Your task to perform on an android device: change notification settings in the gmail app Image 0: 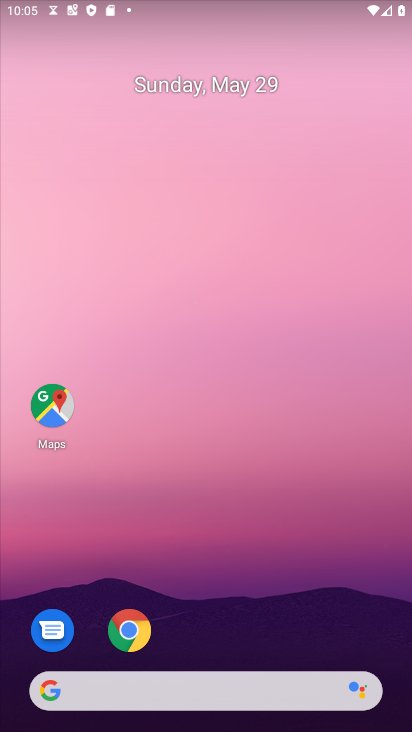
Step 0: drag from (248, 625) to (283, 125)
Your task to perform on an android device: change notification settings in the gmail app Image 1: 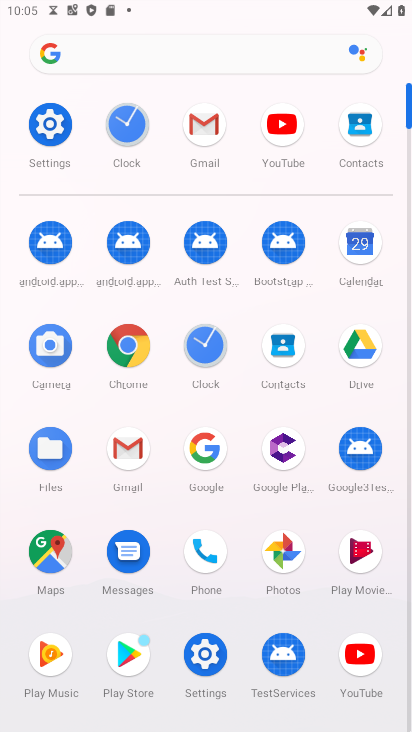
Step 1: click (204, 129)
Your task to perform on an android device: change notification settings in the gmail app Image 2: 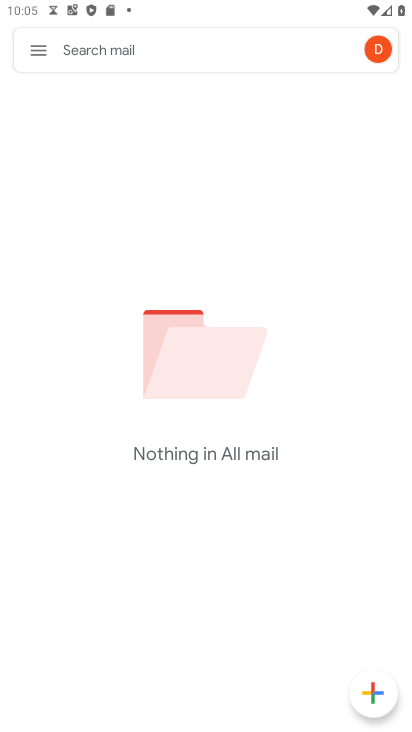
Step 2: click (33, 53)
Your task to perform on an android device: change notification settings in the gmail app Image 3: 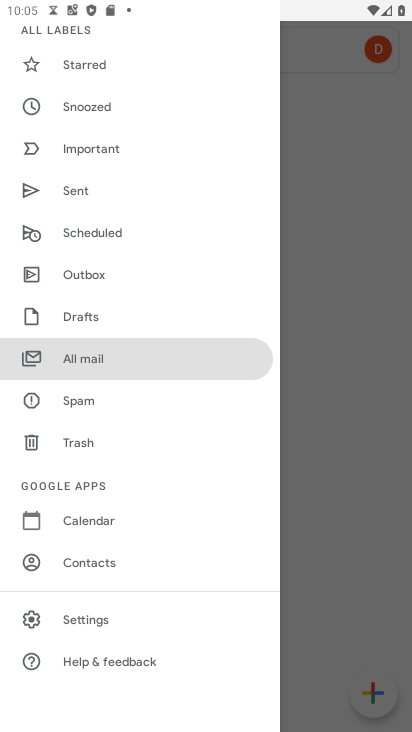
Step 3: click (106, 622)
Your task to perform on an android device: change notification settings in the gmail app Image 4: 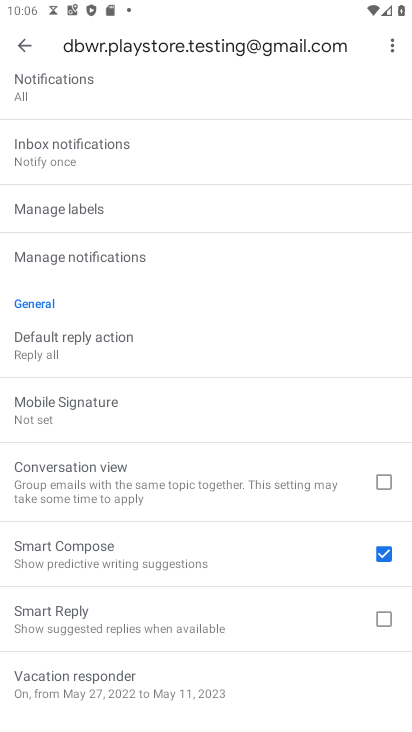
Step 4: click (67, 265)
Your task to perform on an android device: change notification settings in the gmail app Image 5: 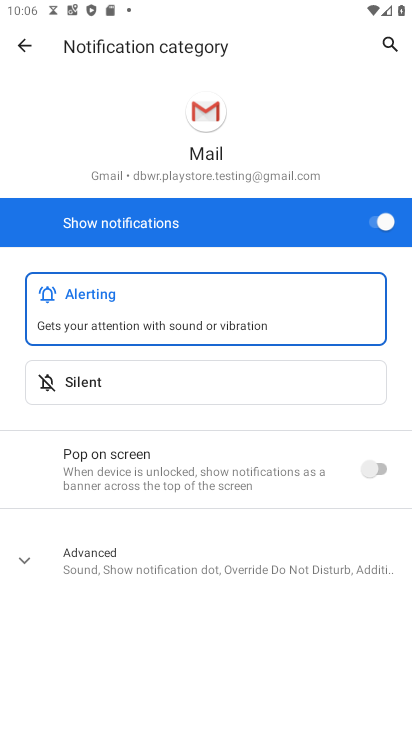
Step 5: click (372, 220)
Your task to perform on an android device: change notification settings in the gmail app Image 6: 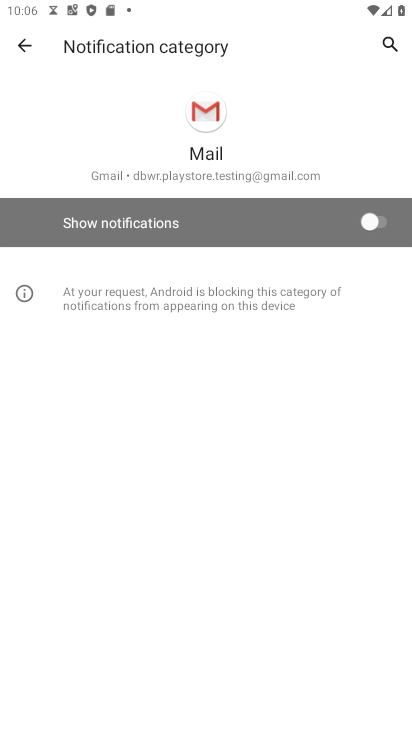
Step 6: task complete